Your task to perform on an android device: Open Youtube and go to "Your channel" Image 0: 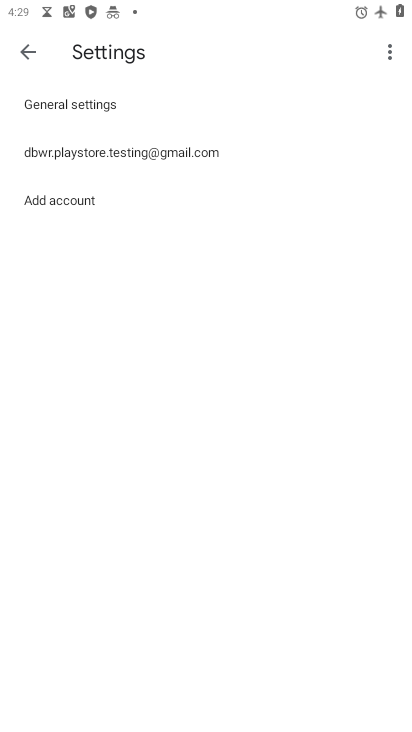
Step 0: press back button
Your task to perform on an android device: Open Youtube and go to "Your channel" Image 1: 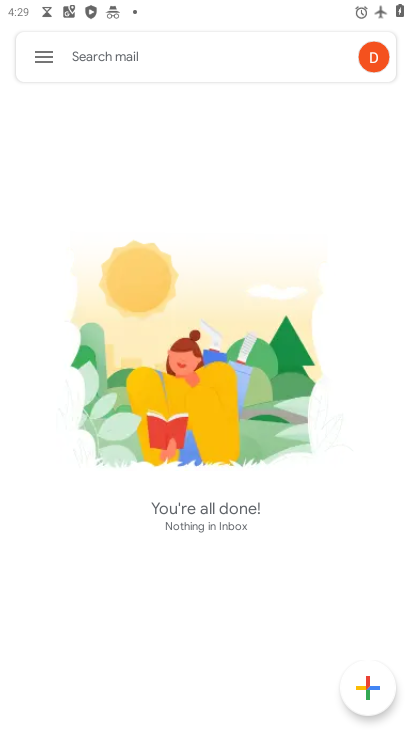
Step 1: click (154, 29)
Your task to perform on an android device: Open Youtube and go to "Your channel" Image 2: 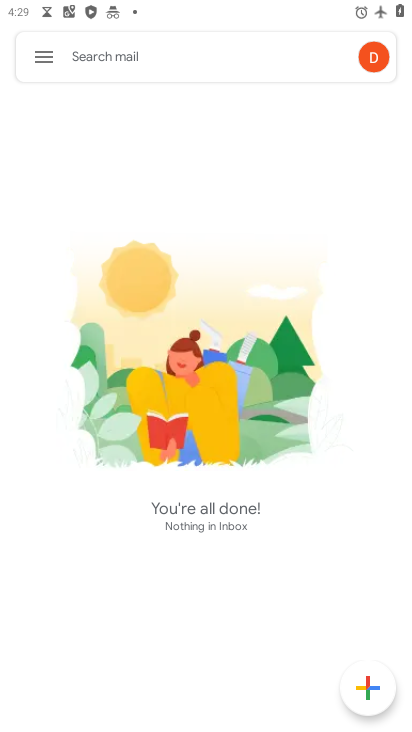
Step 2: press home button
Your task to perform on an android device: Open Youtube and go to "Your channel" Image 3: 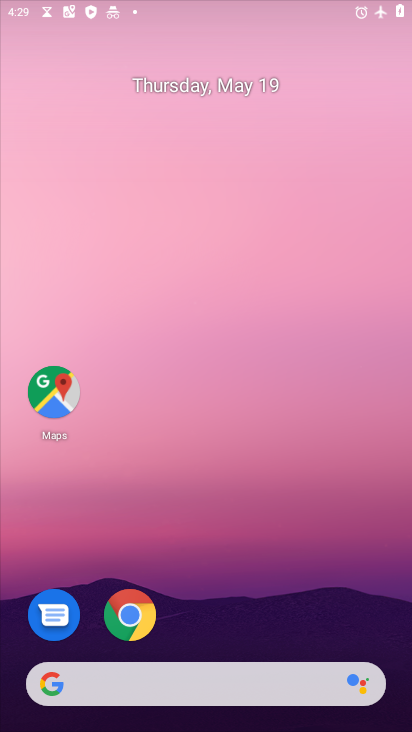
Step 3: drag from (263, 653) to (146, 66)
Your task to perform on an android device: Open Youtube and go to "Your channel" Image 4: 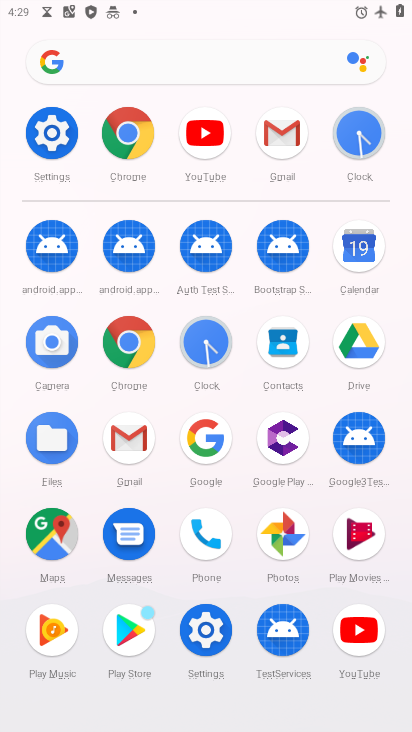
Step 4: click (359, 626)
Your task to perform on an android device: Open Youtube and go to "Your channel" Image 5: 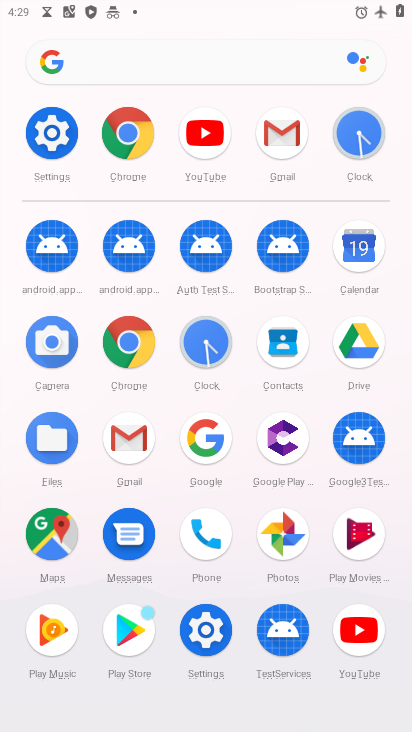
Step 5: click (359, 626)
Your task to perform on an android device: Open Youtube and go to "Your channel" Image 6: 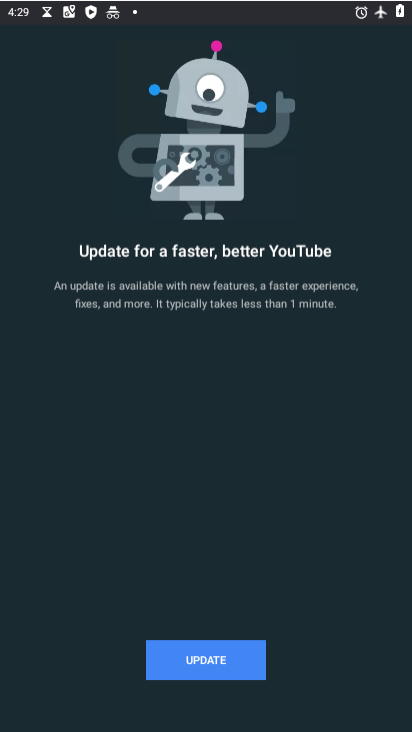
Step 6: click (361, 628)
Your task to perform on an android device: Open Youtube and go to "Your channel" Image 7: 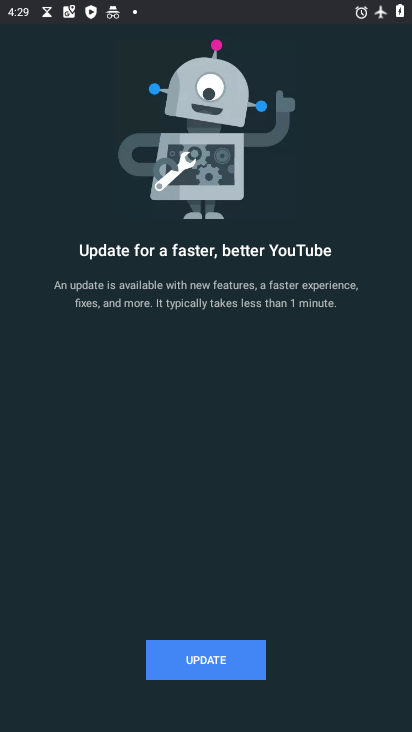
Step 7: click (206, 657)
Your task to perform on an android device: Open Youtube and go to "Your channel" Image 8: 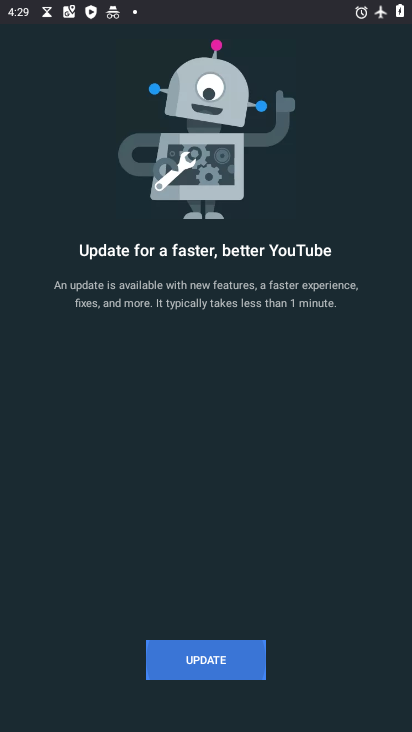
Step 8: click (215, 651)
Your task to perform on an android device: Open Youtube and go to "Your channel" Image 9: 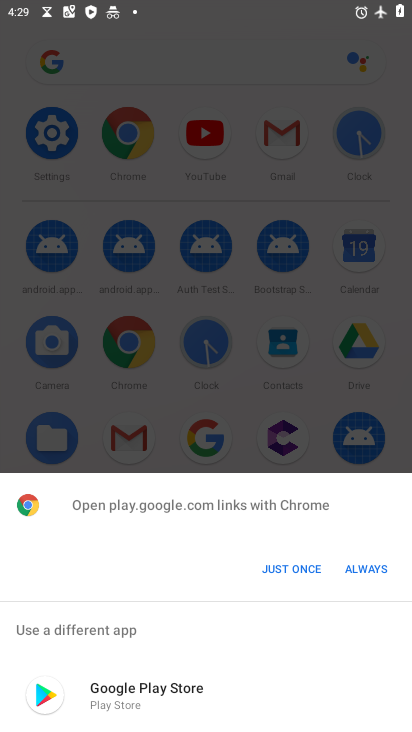
Step 9: click (371, 569)
Your task to perform on an android device: Open Youtube and go to "Your channel" Image 10: 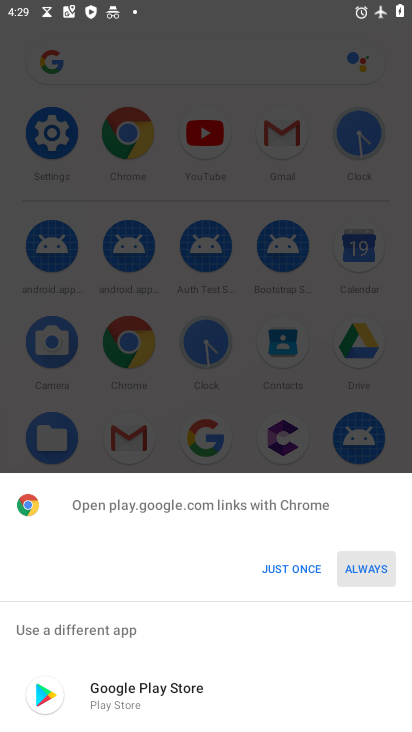
Step 10: click (371, 568)
Your task to perform on an android device: Open Youtube and go to "Your channel" Image 11: 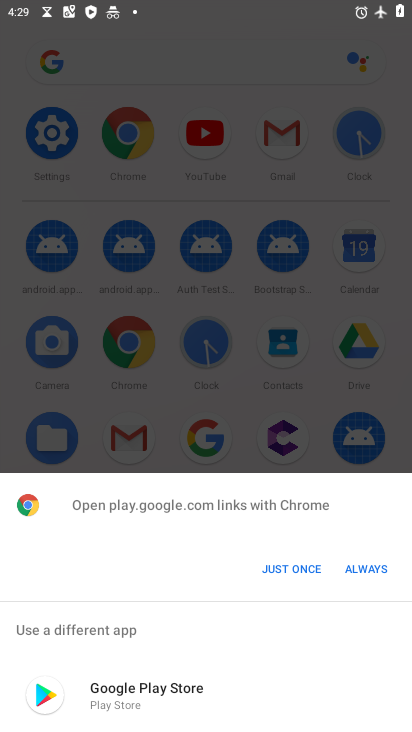
Step 11: click (371, 568)
Your task to perform on an android device: Open Youtube and go to "Your channel" Image 12: 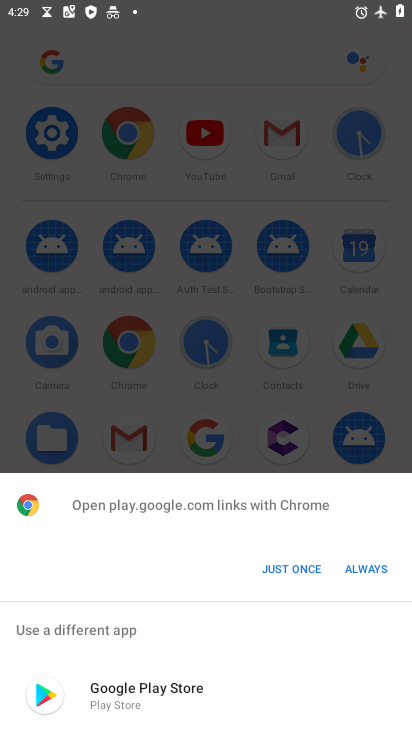
Step 12: click (371, 568)
Your task to perform on an android device: Open Youtube and go to "Your channel" Image 13: 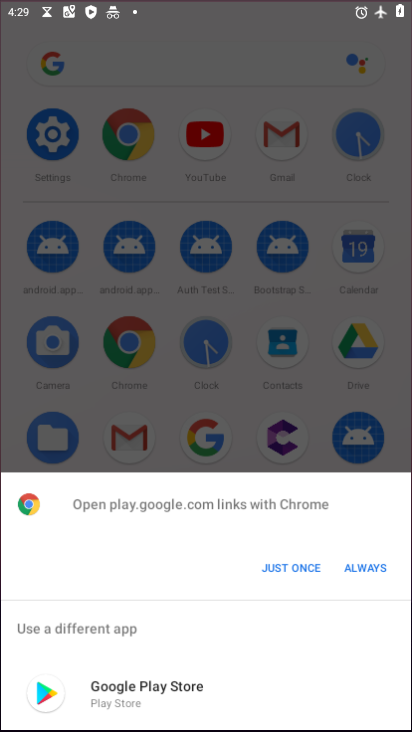
Step 13: click (370, 567)
Your task to perform on an android device: Open Youtube and go to "Your channel" Image 14: 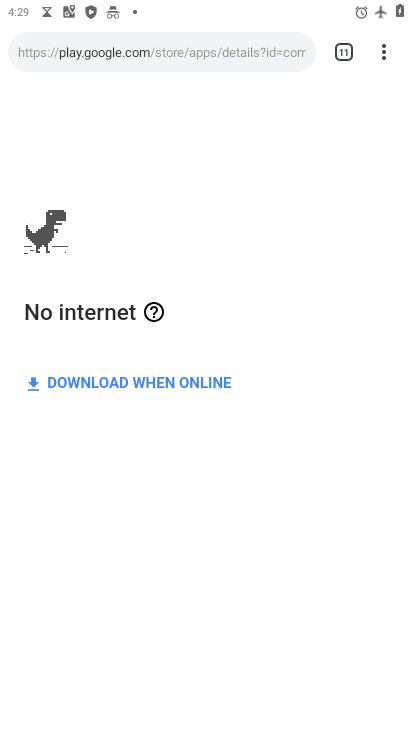
Step 14: task complete